Your task to perform on an android device: Find coffee shops on Maps Image 0: 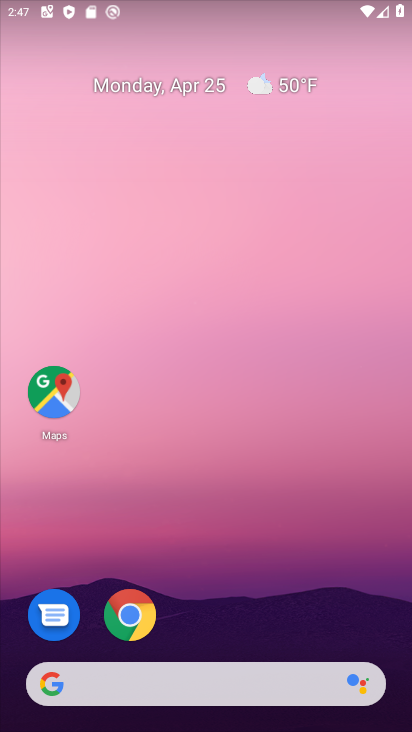
Step 0: drag from (196, 717) to (198, 180)
Your task to perform on an android device: Find coffee shops on Maps Image 1: 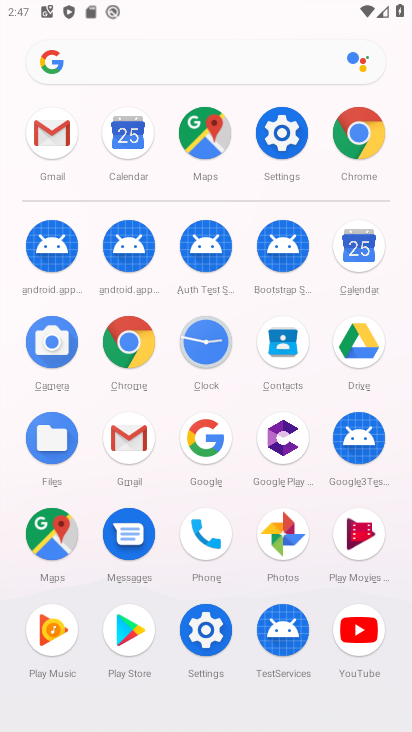
Step 1: click (48, 545)
Your task to perform on an android device: Find coffee shops on Maps Image 2: 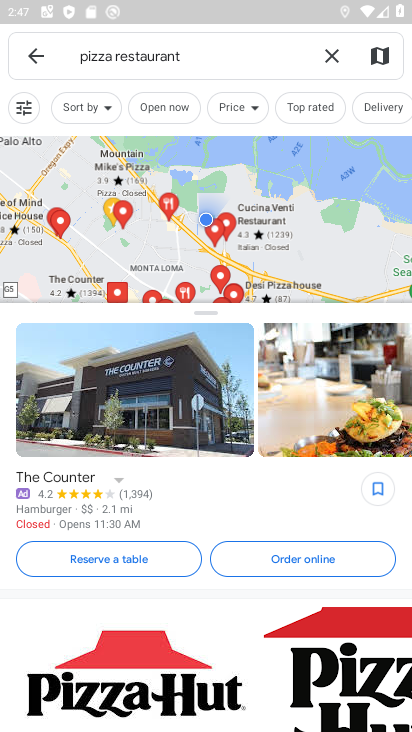
Step 2: click (333, 46)
Your task to perform on an android device: Find coffee shops on Maps Image 3: 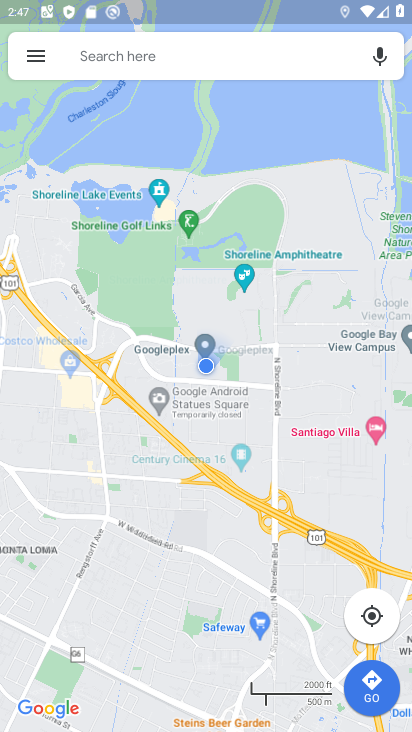
Step 3: click (147, 62)
Your task to perform on an android device: Find coffee shops on Maps Image 4: 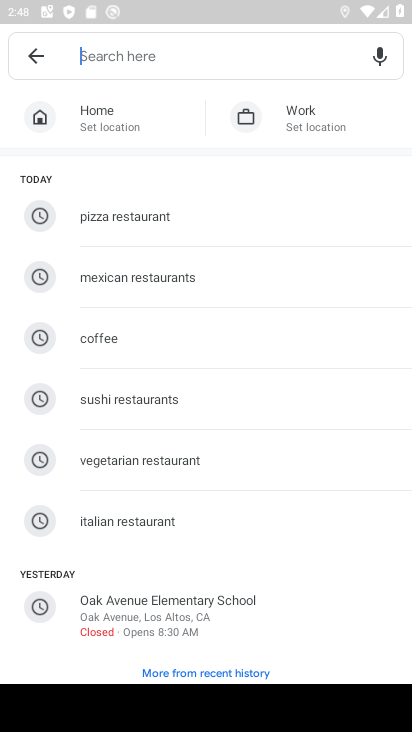
Step 4: type "coffee shops"
Your task to perform on an android device: Find coffee shops on Maps Image 5: 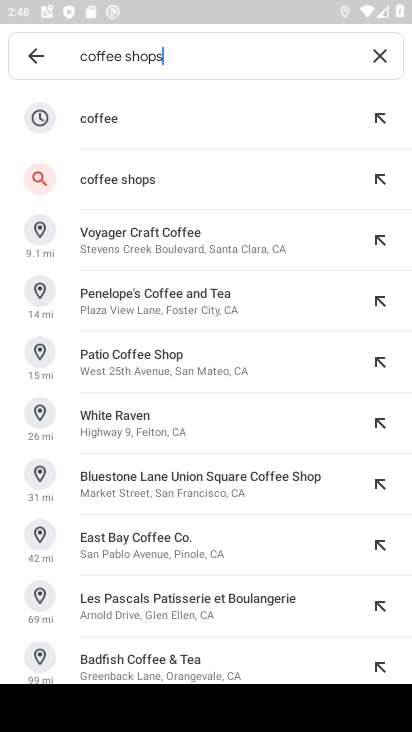
Step 5: click (111, 178)
Your task to perform on an android device: Find coffee shops on Maps Image 6: 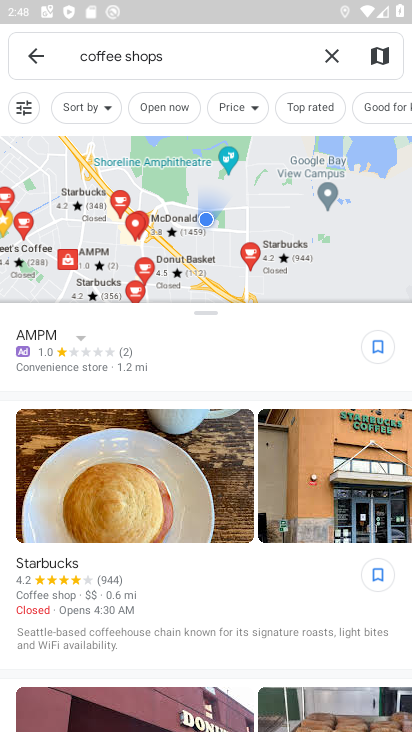
Step 6: task complete